Your task to perform on an android device: change the clock display to digital Image 0: 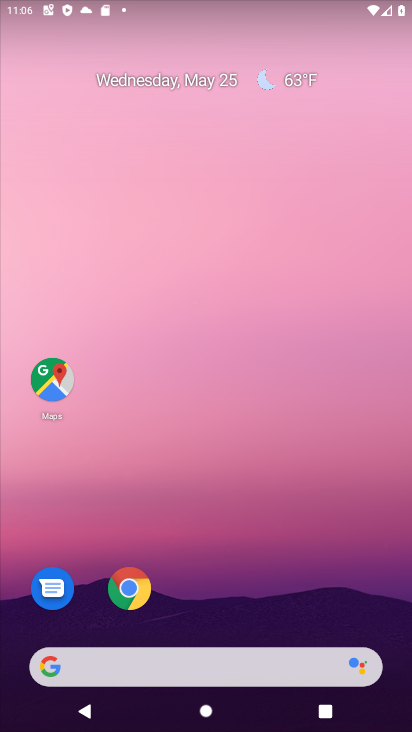
Step 0: drag from (205, 611) to (204, 96)
Your task to perform on an android device: change the clock display to digital Image 1: 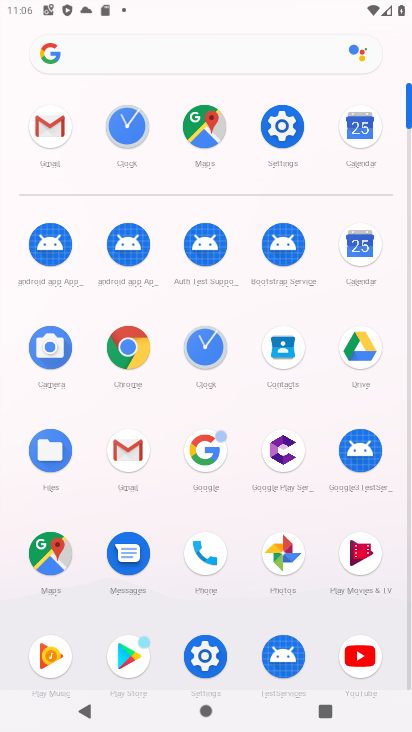
Step 1: click (213, 355)
Your task to perform on an android device: change the clock display to digital Image 2: 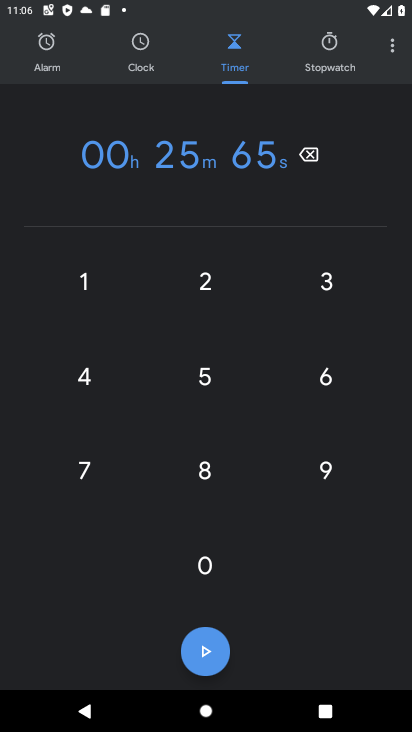
Step 2: click (393, 50)
Your task to perform on an android device: change the clock display to digital Image 3: 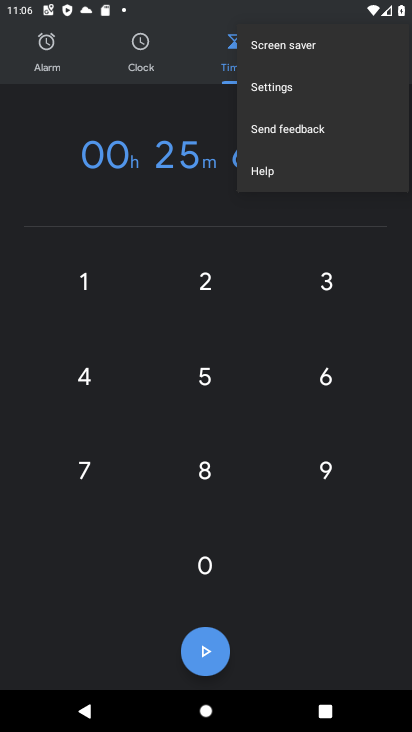
Step 3: click (267, 85)
Your task to perform on an android device: change the clock display to digital Image 4: 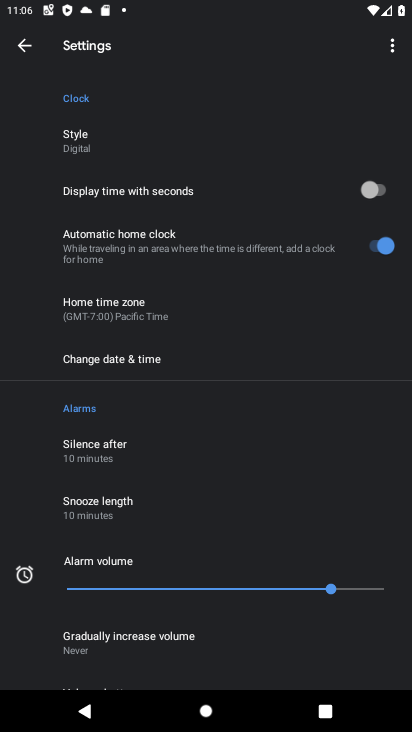
Step 4: click (156, 133)
Your task to perform on an android device: change the clock display to digital Image 5: 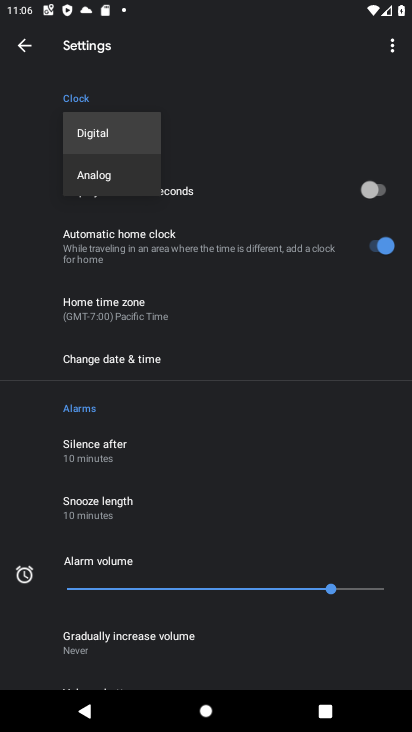
Step 5: task complete